Your task to perform on an android device: Open Youtube and go to the subscriptions tab Image 0: 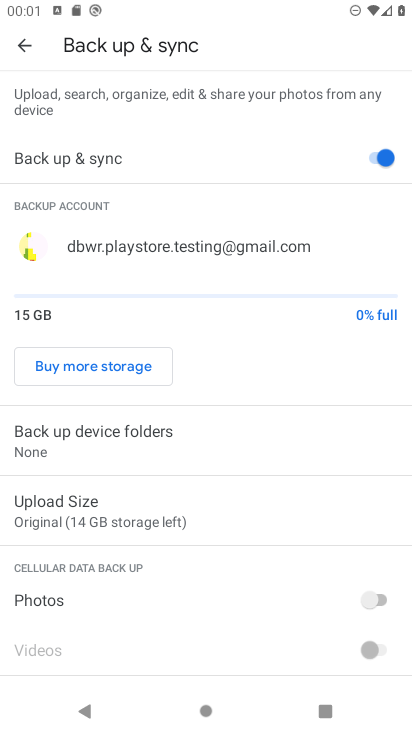
Step 0: press home button
Your task to perform on an android device: Open Youtube and go to the subscriptions tab Image 1: 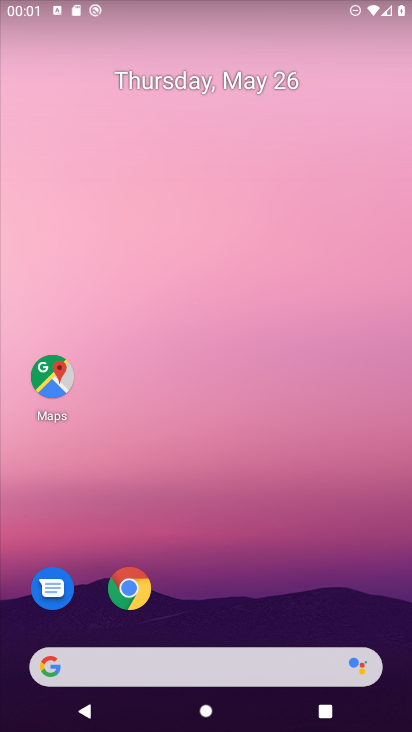
Step 1: drag from (18, 573) to (354, 91)
Your task to perform on an android device: Open Youtube and go to the subscriptions tab Image 2: 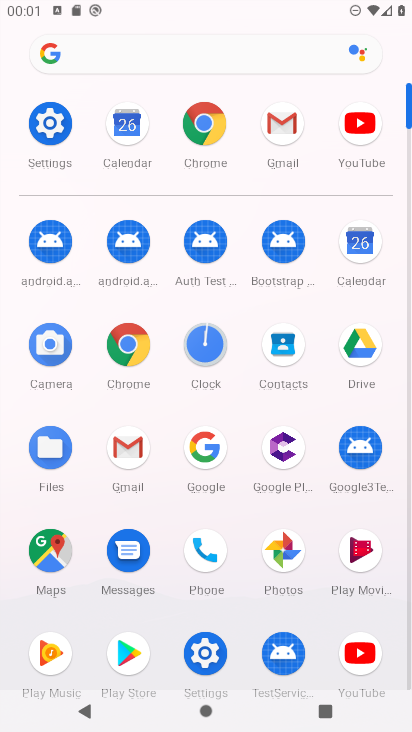
Step 2: click (359, 117)
Your task to perform on an android device: Open Youtube and go to the subscriptions tab Image 3: 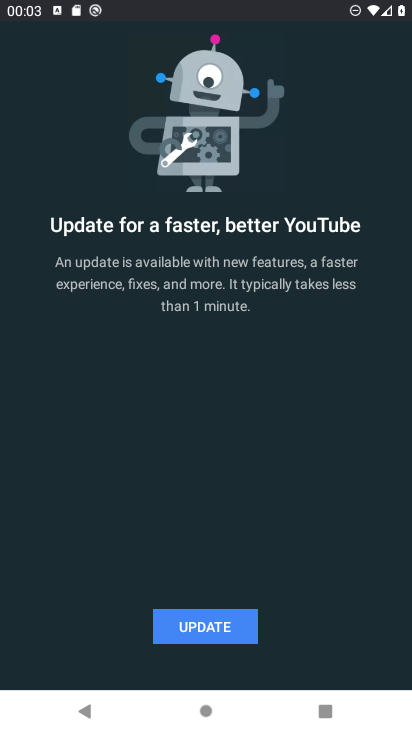
Step 3: task complete